Your task to perform on an android device: turn pop-ups off in chrome Image 0: 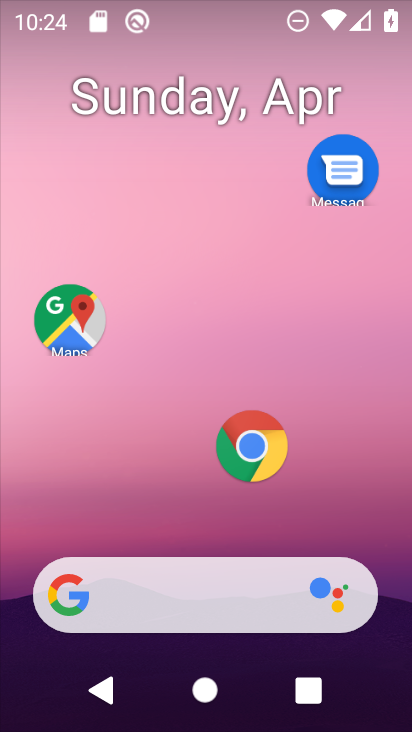
Step 0: drag from (191, 529) to (187, 135)
Your task to perform on an android device: turn pop-ups off in chrome Image 1: 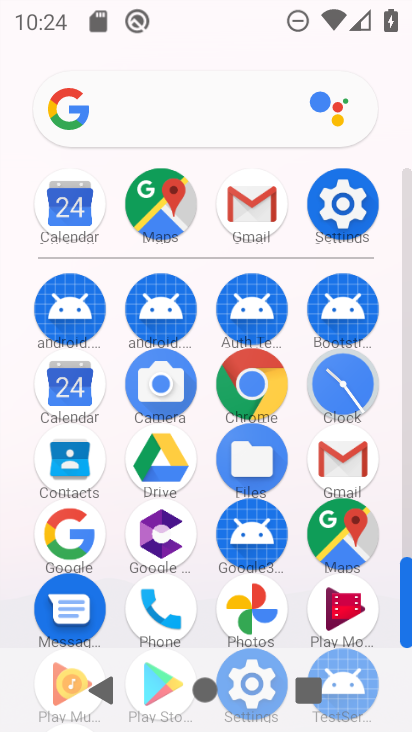
Step 1: click (247, 377)
Your task to perform on an android device: turn pop-ups off in chrome Image 2: 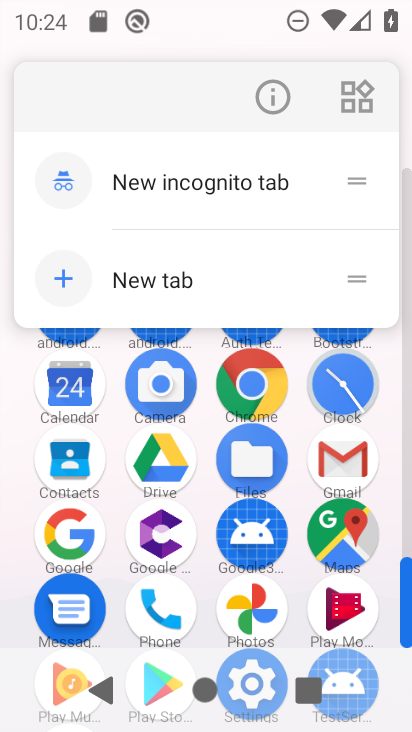
Step 2: click (282, 98)
Your task to perform on an android device: turn pop-ups off in chrome Image 3: 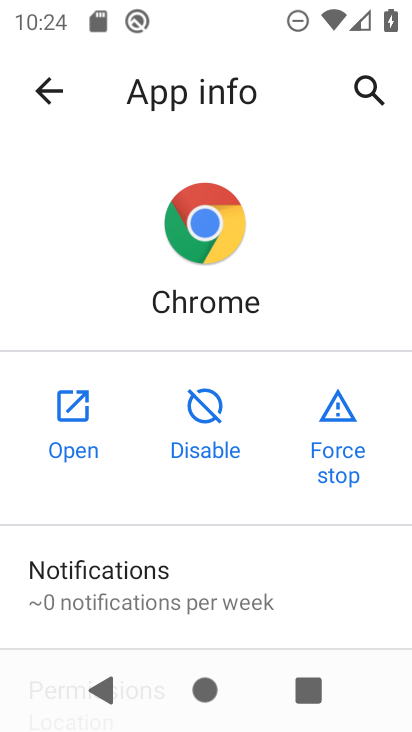
Step 3: click (82, 420)
Your task to perform on an android device: turn pop-ups off in chrome Image 4: 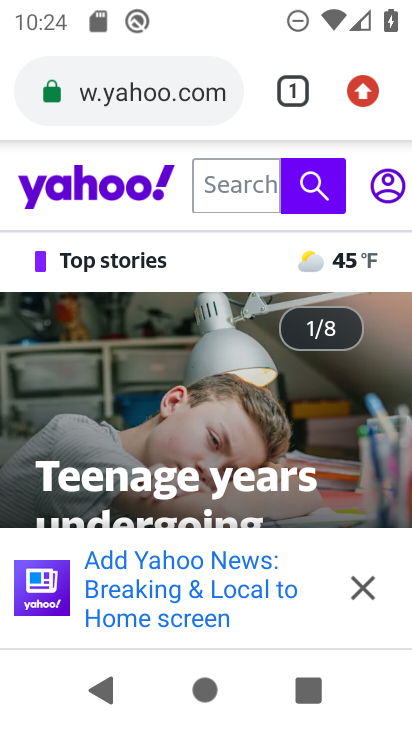
Step 4: drag from (357, 109) to (223, 476)
Your task to perform on an android device: turn pop-ups off in chrome Image 5: 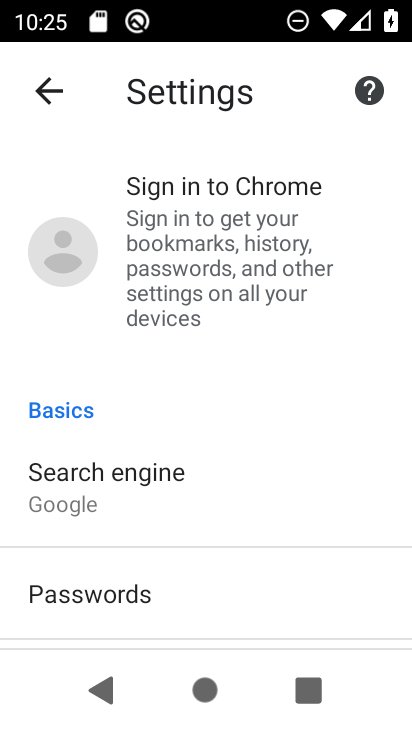
Step 5: drag from (191, 562) to (237, 249)
Your task to perform on an android device: turn pop-ups off in chrome Image 6: 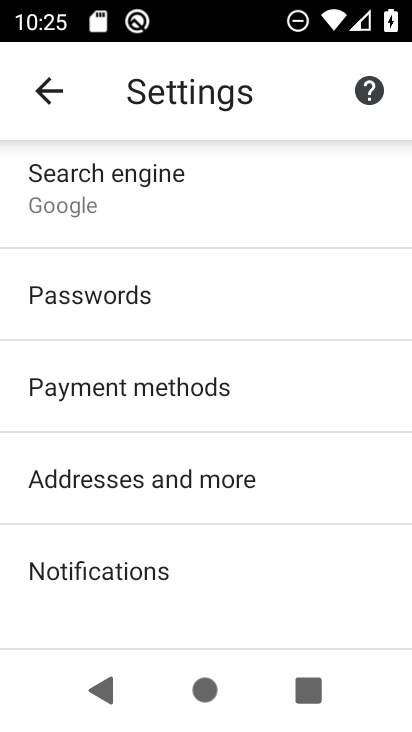
Step 6: drag from (199, 568) to (234, 201)
Your task to perform on an android device: turn pop-ups off in chrome Image 7: 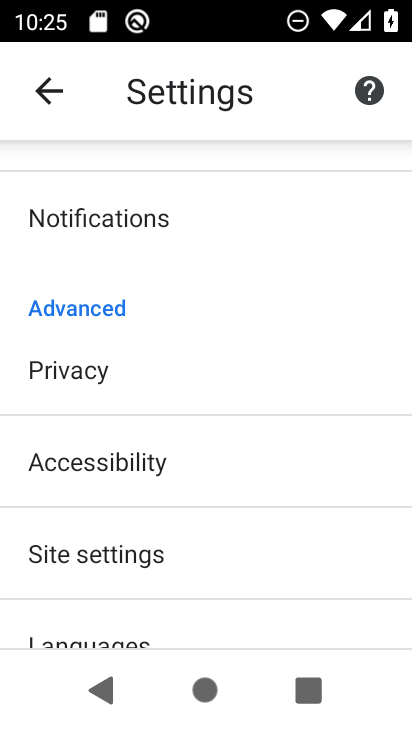
Step 7: click (122, 556)
Your task to perform on an android device: turn pop-ups off in chrome Image 8: 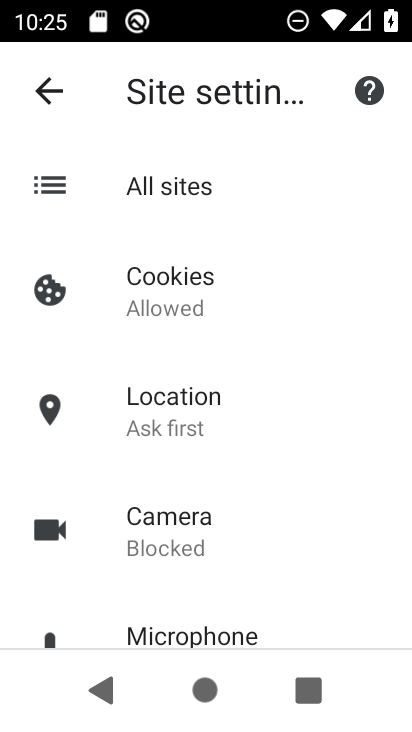
Step 8: drag from (229, 562) to (229, 146)
Your task to perform on an android device: turn pop-ups off in chrome Image 9: 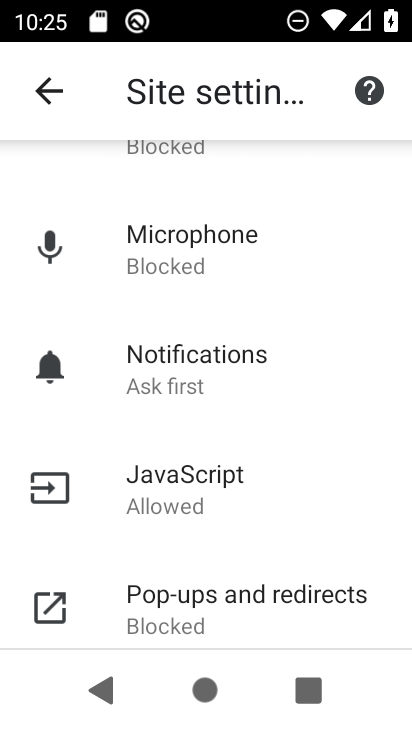
Step 9: click (205, 604)
Your task to perform on an android device: turn pop-ups off in chrome Image 10: 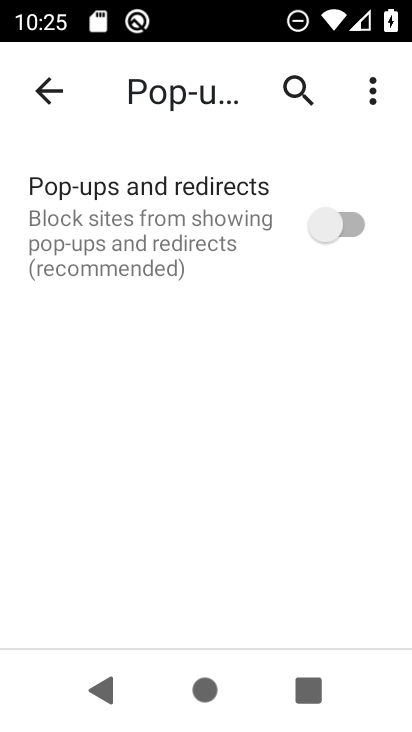
Step 10: task complete